Your task to perform on an android device: remove spam from my inbox in the gmail app Image 0: 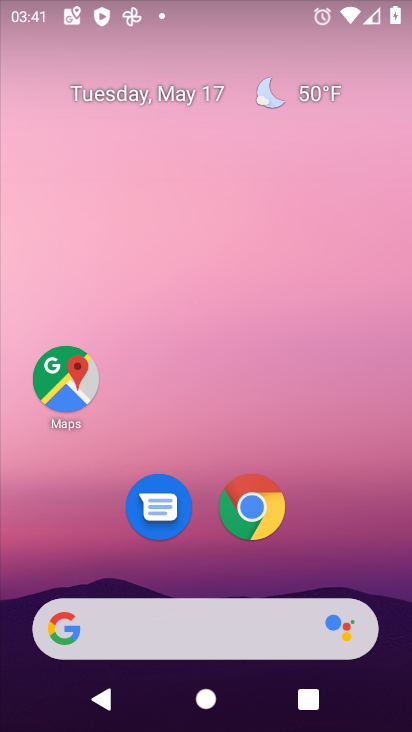
Step 0: drag from (339, 547) to (208, 17)
Your task to perform on an android device: remove spam from my inbox in the gmail app Image 1: 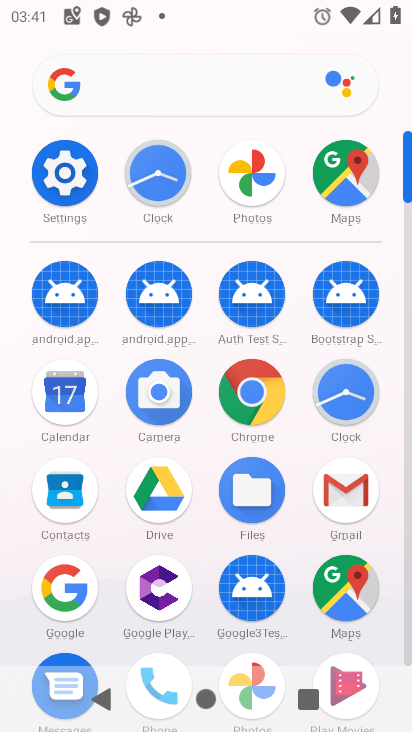
Step 1: click (352, 501)
Your task to perform on an android device: remove spam from my inbox in the gmail app Image 2: 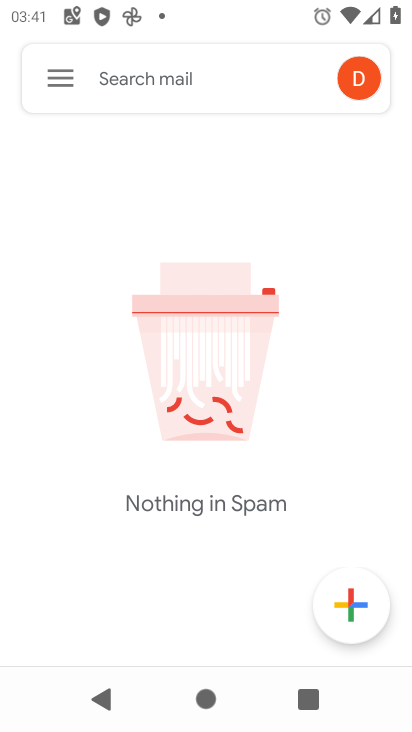
Step 2: click (57, 79)
Your task to perform on an android device: remove spam from my inbox in the gmail app Image 3: 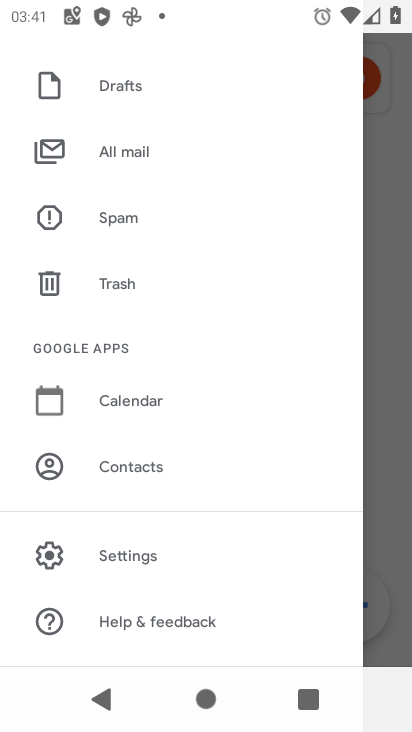
Step 3: click (144, 212)
Your task to perform on an android device: remove spam from my inbox in the gmail app Image 4: 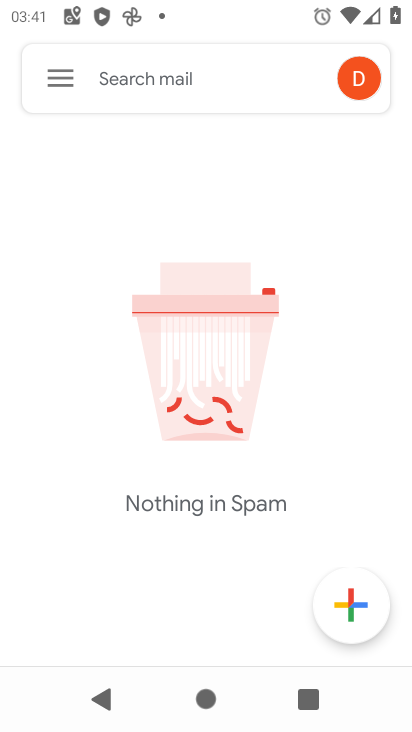
Step 4: task complete